Your task to perform on an android device: What's the weather today? Image 0: 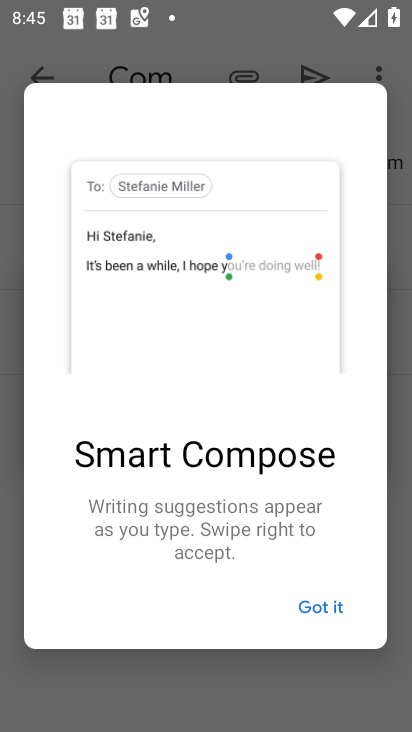
Step 0: press home button
Your task to perform on an android device: What's the weather today? Image 1: 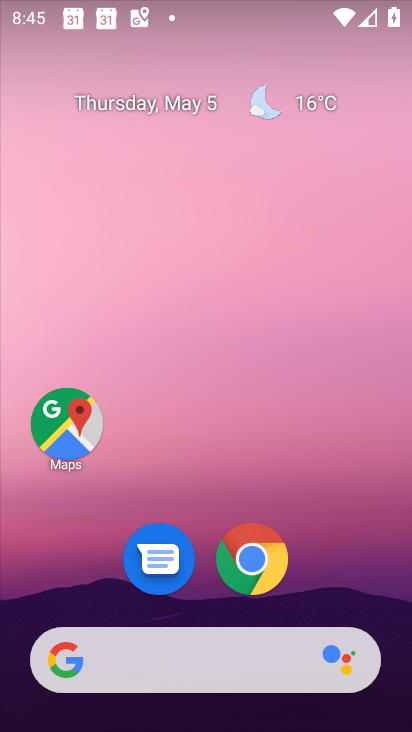
Step 1: click (314, 105)
Your task to perform on an android device: What's the weather today? Image 2: 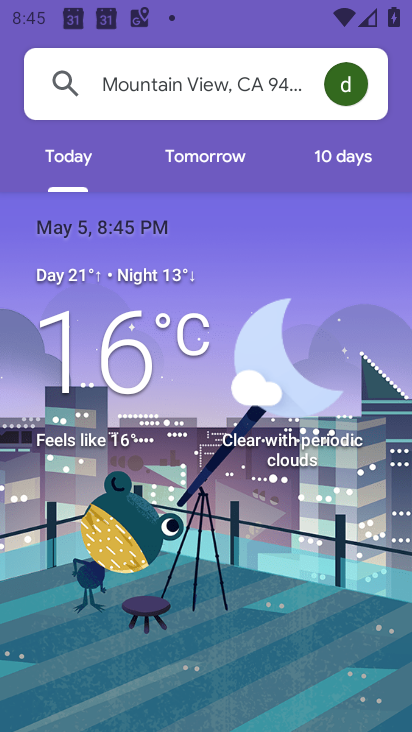
Step 2: task complete